Your task to perform on an android device: show emergency info Image 0: 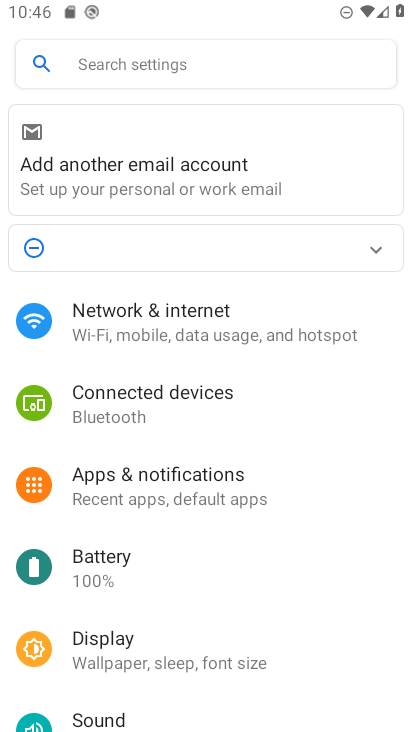
Step 0: click (158, 60)
Your task to perform on an android device: show emergency info Image 1: 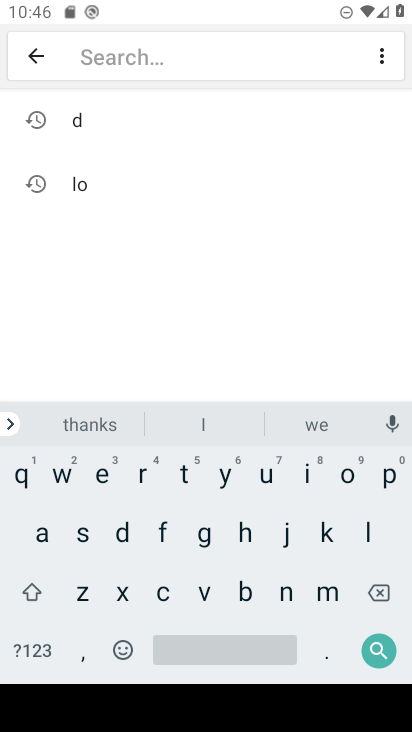
Step 1: click (97, 472)
Your task to perform on an android device: show emergency info Image 2: 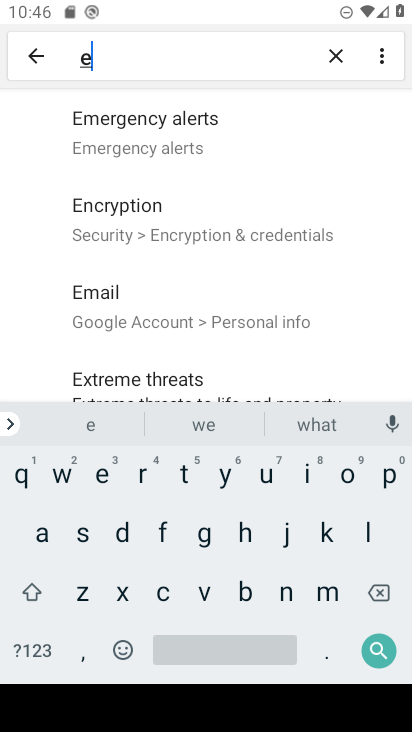
Step 2: click (327, 594)
Your task to perform on an android device: show emergency info Image 3: 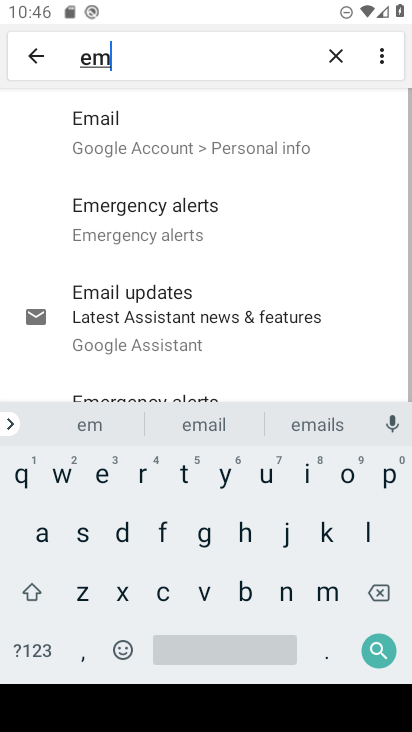
Step 3: click (97, 471)
Your task to perform on an android device: show emergency info Image 4: 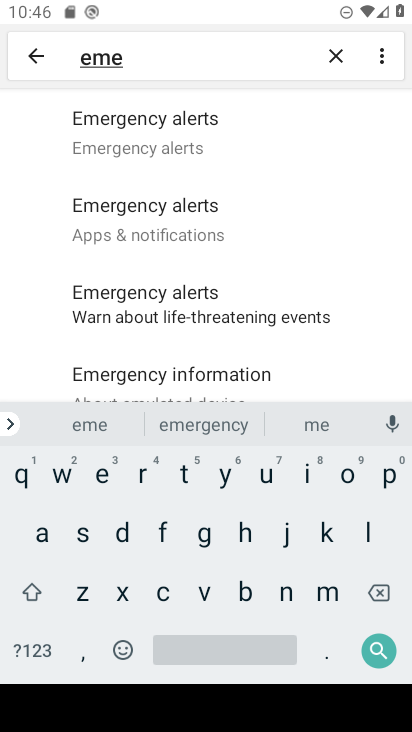
Step 4: click (217, 418)
Your task to perform on an android device: show emergency info Image 5: 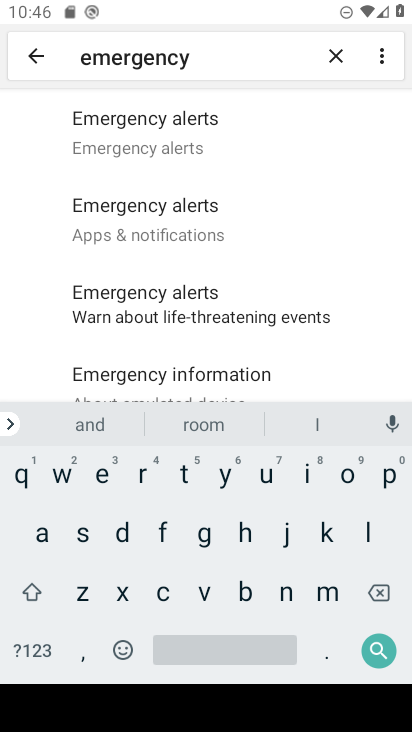
Step 5: click (305, 472)
Your task to perform on an android device: show emergency info Image 6: 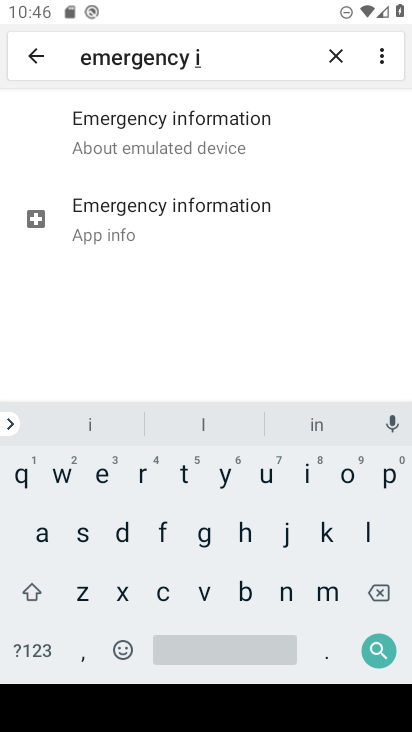
Step 6: click (199, 109)
Your task to perform on an android device: show emergency info Image 7: 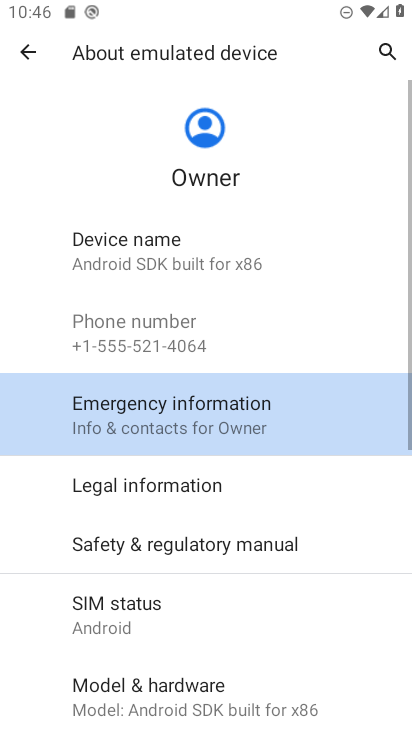
Step 7: click (167, 433)
Your task to perform on an android device: show emergency info Image 8: 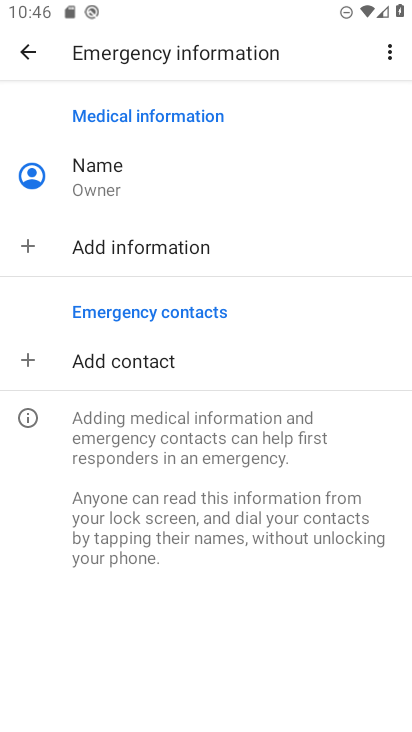
Step 8: task complete